Your task to perform on an android device: see tabs open on other devices in the chrome app Image 0: 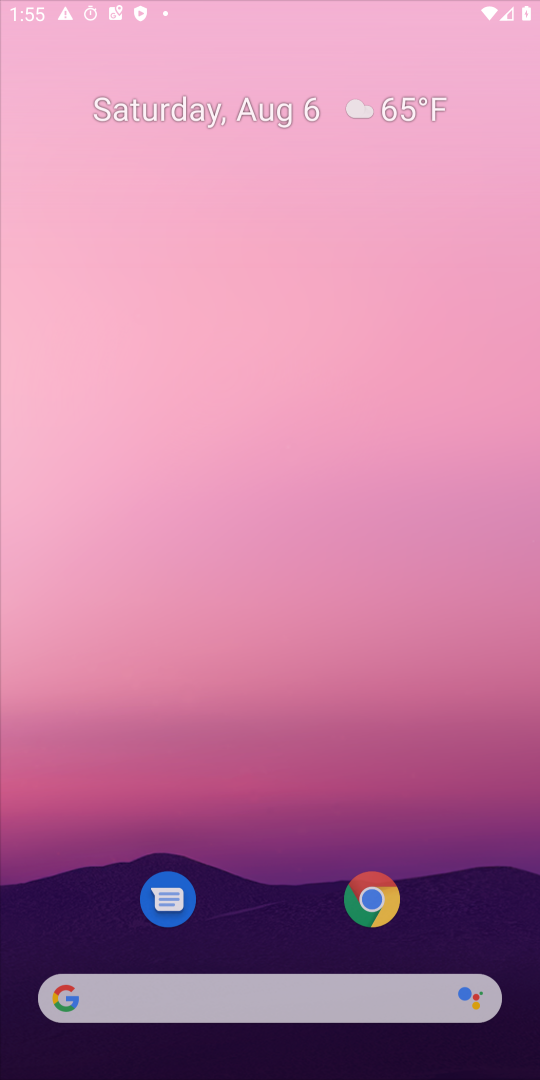
Step 0: press home button
Your task to perform on an android device: see tabs open on other devices in the chrome app Image 1: 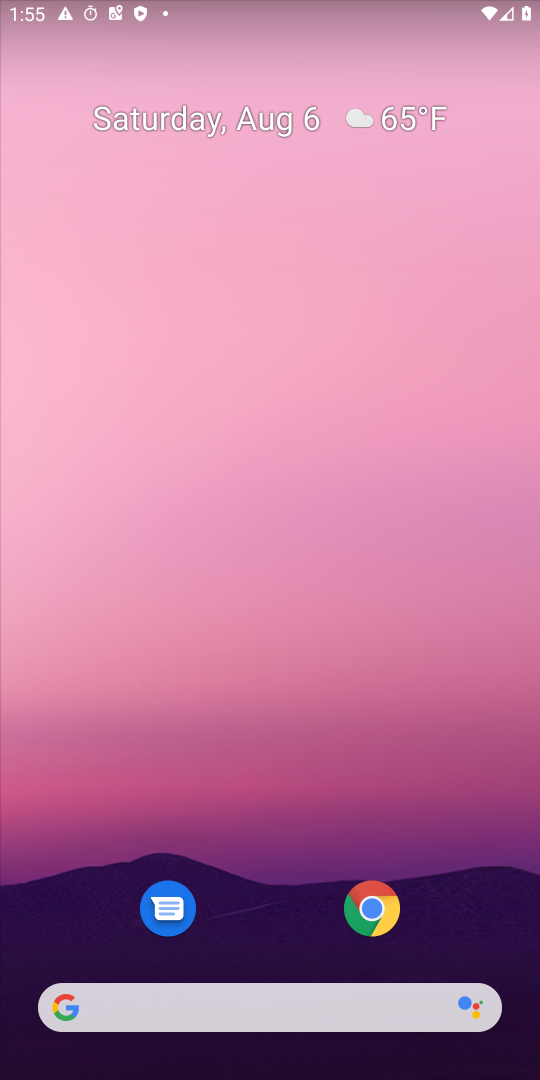
Step 1: click (377, 908)
Your task to perform on an android device: see tabs open on other devices in the chrome app Image 2: 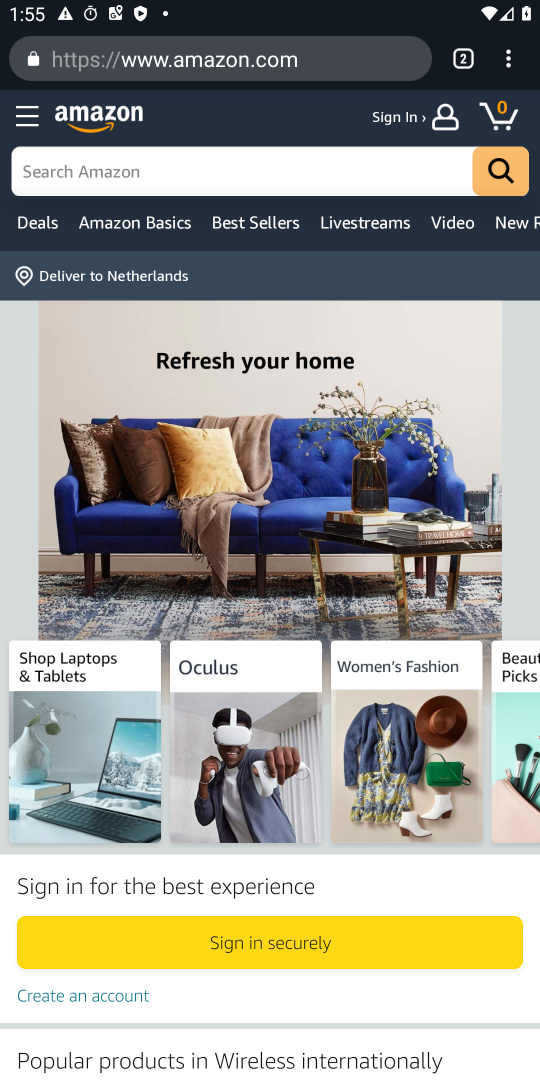
Step 2: click (506, 54)
Your task to perform on an android device: see tabs open on other devices in the chrome app Image 3: 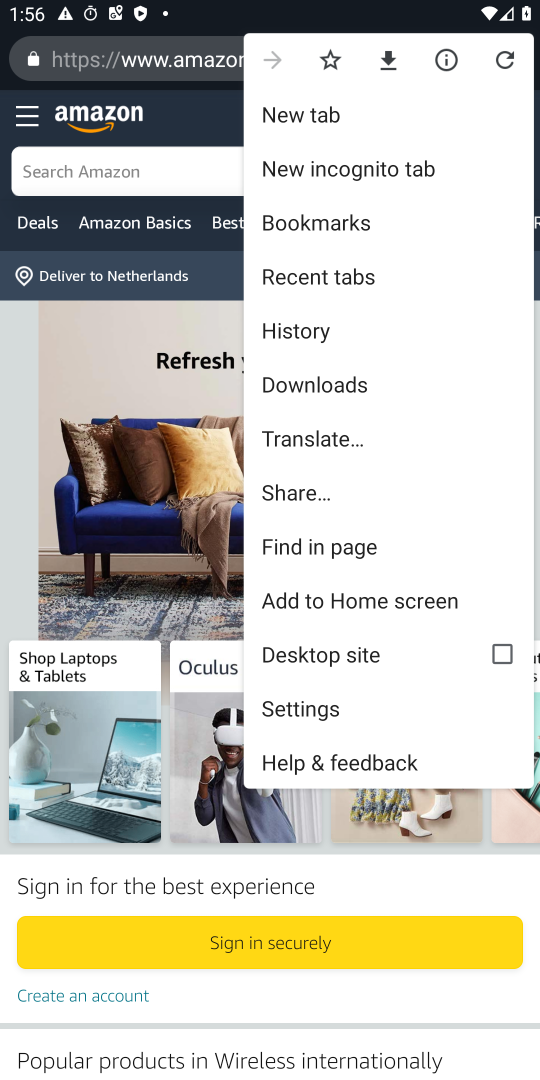
Step 3: click (332, 283)
Your task to perform on an android device: see tabs open on other devices in the chrome app Image 4: 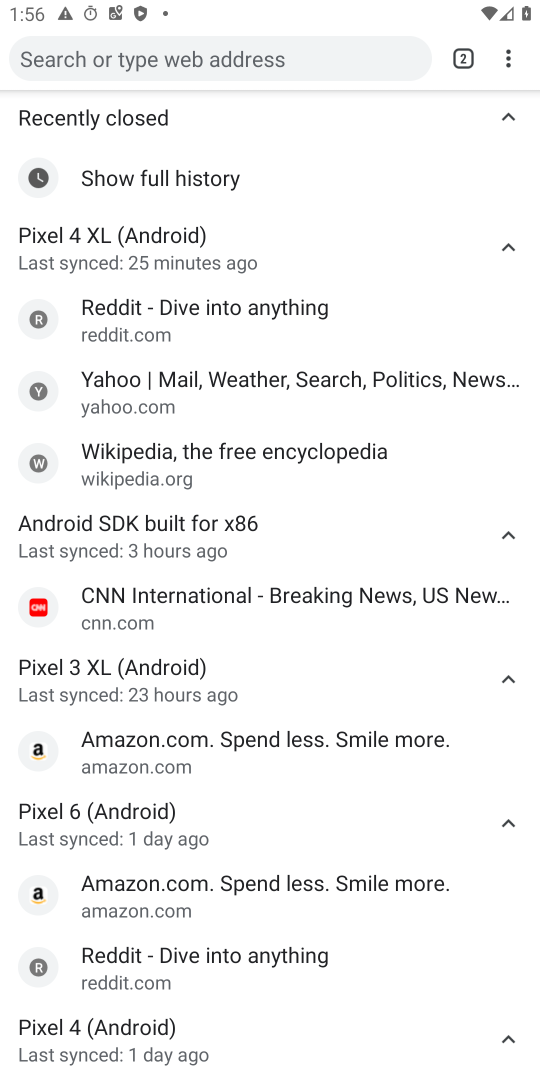
Step 4: task complete